Your task to perform on an android device: Open Amazon Image 0: 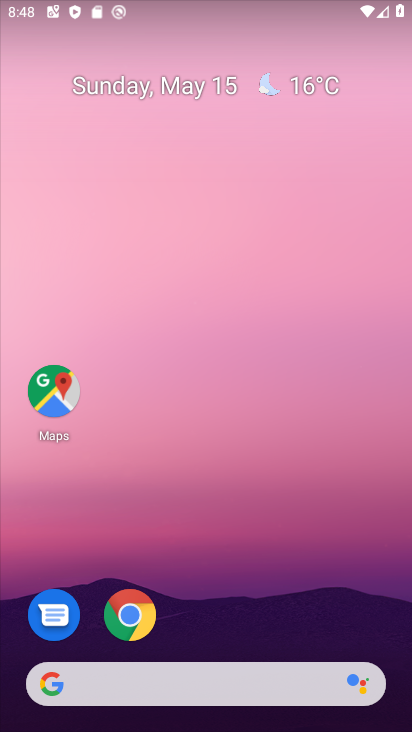
Step 0: drag from (225, 625) to (219, 410)
Your task to perform on an android device: Open Amazon Image 1: 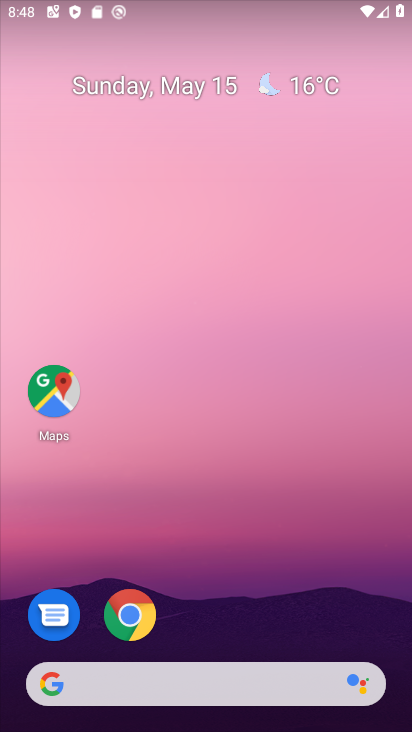
Step 1: click (111, 630)
Your task to perform on an android device: Open Amazon Image 2: 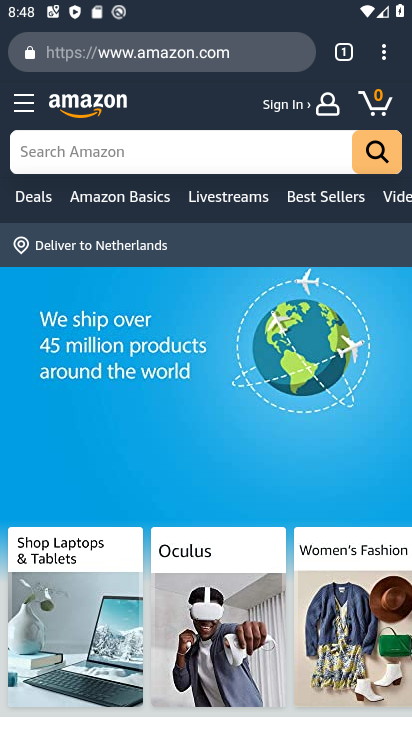
Step 2: task complete